Your task to perform on an android device: Open the stopwatch Image 0: 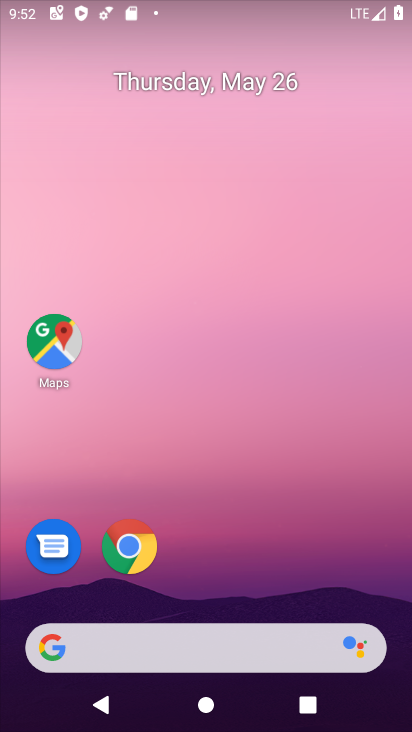
Step 0: drag from (370, 591) to (363, 66)
Your task to perform on an android device: Open the stopwatch Image 1: 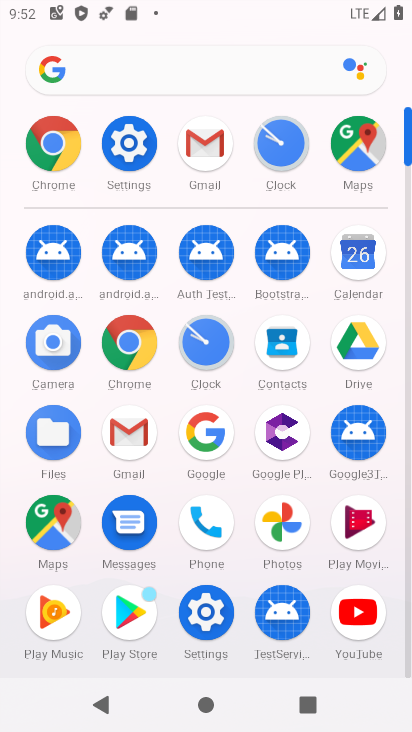
Step 1: click (214, 342)
Your task to perform on an android device: Open the stopwatch Image 2: 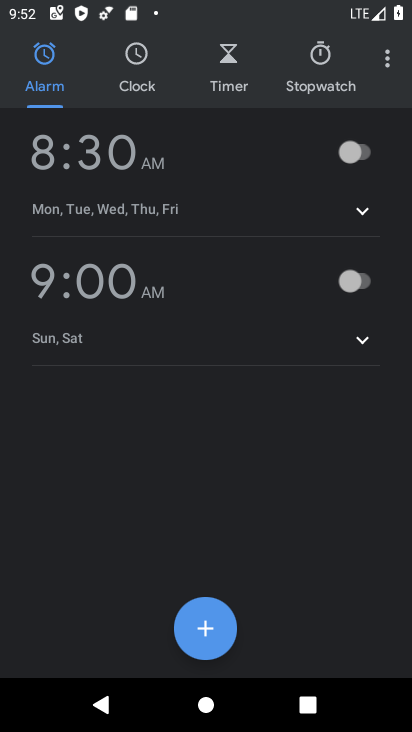
Step 2: click (323, 75)
Your task to perform on an android device: Open the stopwatch Image 3: 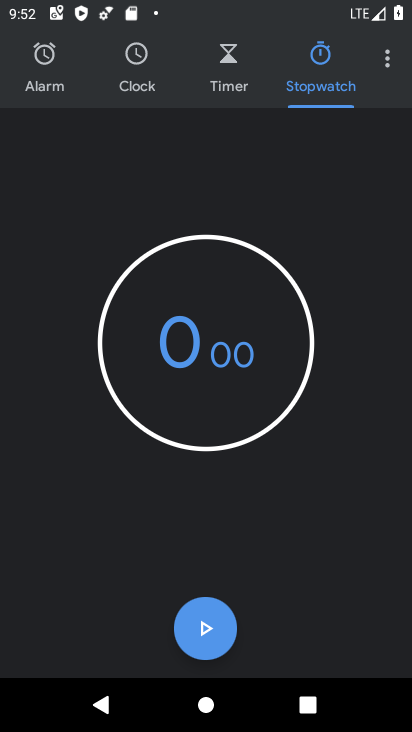
Step 3: click (207, 637)
Your task to perform on an android device: Open the stopwatch Image 4: 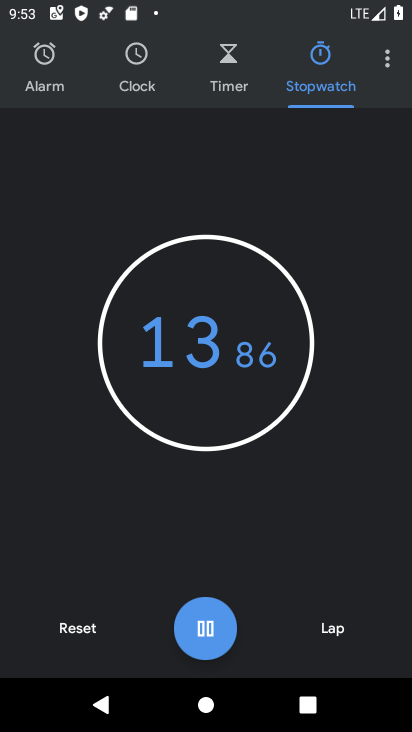
Step 4: click (198, 639)
Your task to perform on an android device: Open the stopwatch Image 5: 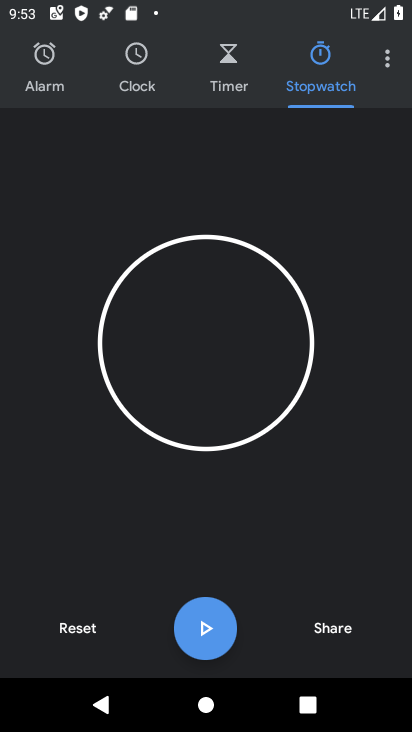
Step 5: task complete